Your task to perform on an android device: stop showing notifications on the lock screen Image 0: 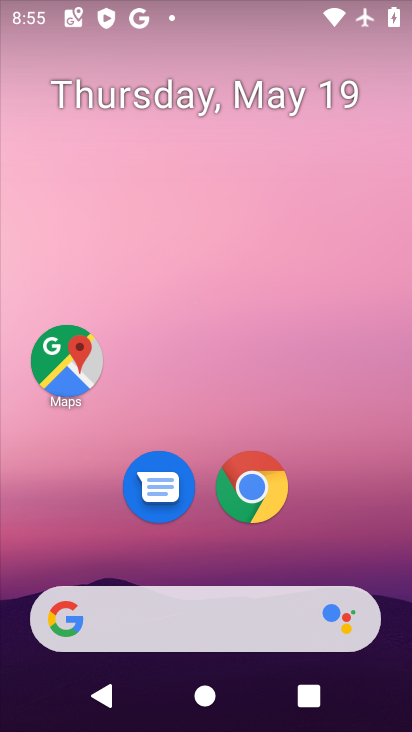
Step 0: drag from (227, 550) to (140, 33)
Your task to perform on an android device: stop showing notifications on the lock screen Image 1: 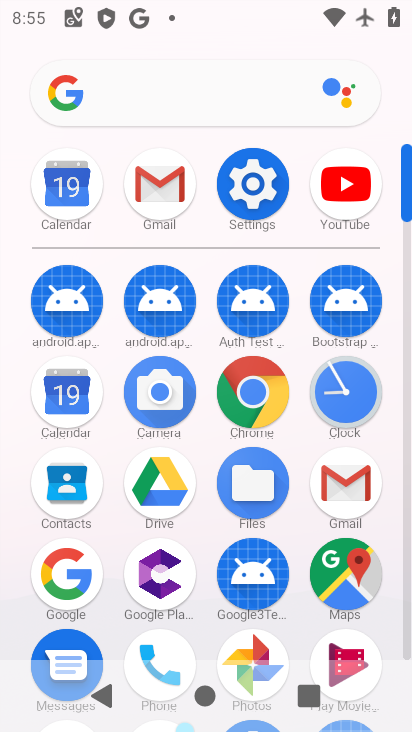
Step 1: click (276, 180)
Your task to perform on an android device: stop showing notifications on the lock screen Image 2: 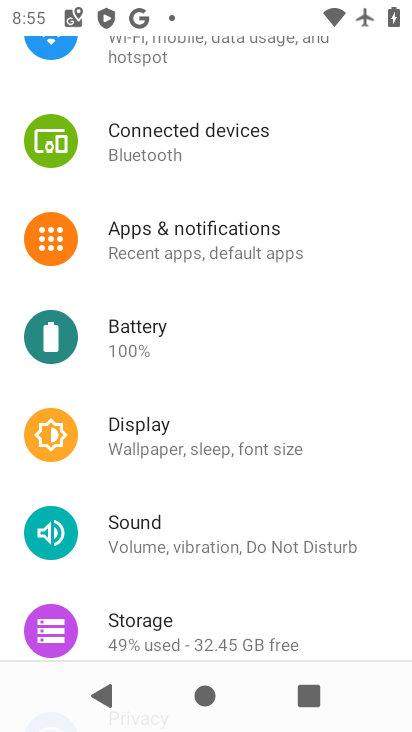
Step 2: click (217, 262)
Your task to perform on an android device: stop showing notifications on the lock screen Image 3: 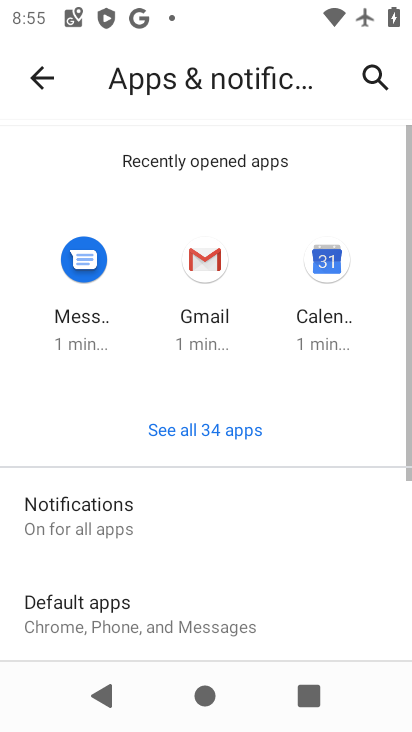
Step 3: click (132, 500)
Your task to perform on an android device: stop showing notifications on the lock screen Image 4: 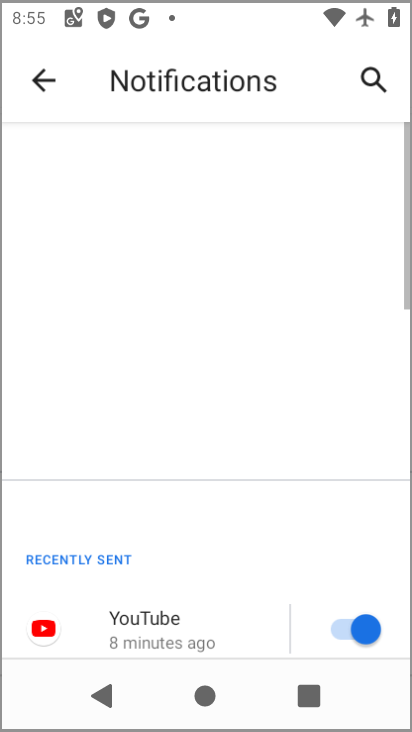
Step 4: drag from (134, 490) to (121, 18)
Your task to perform on an android device: stop showing notifications on the lock screen Image 5: 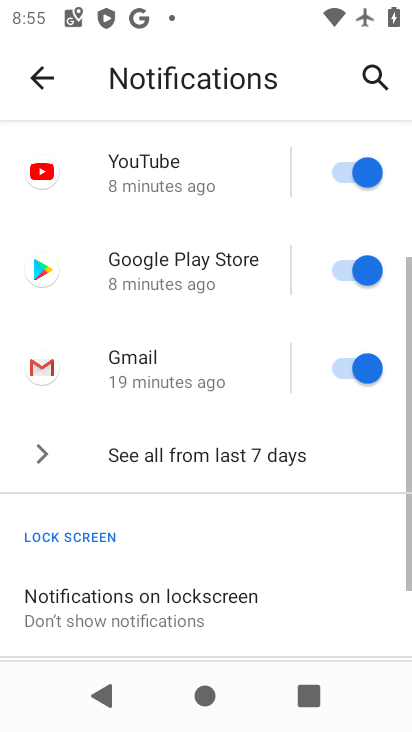
Step 5: drag from (230, 539) to (149, 50)
Your task to perform on an android device: stop showing notifications on the lock screen Image 6: 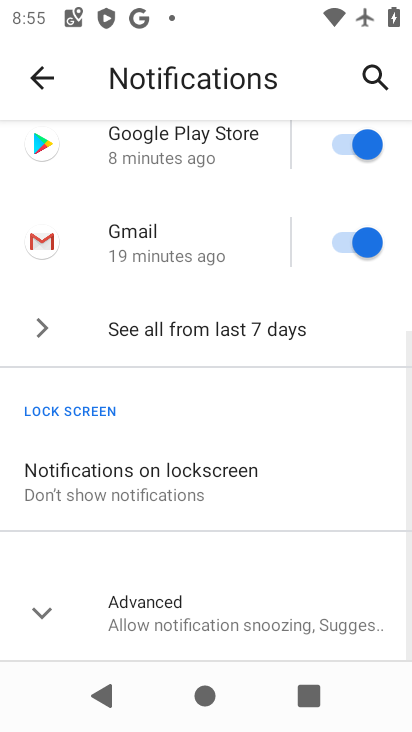
Step 6: click (181, 473)
Your task to perform on an android device: stop showing notifications on the lock screen Image 7: 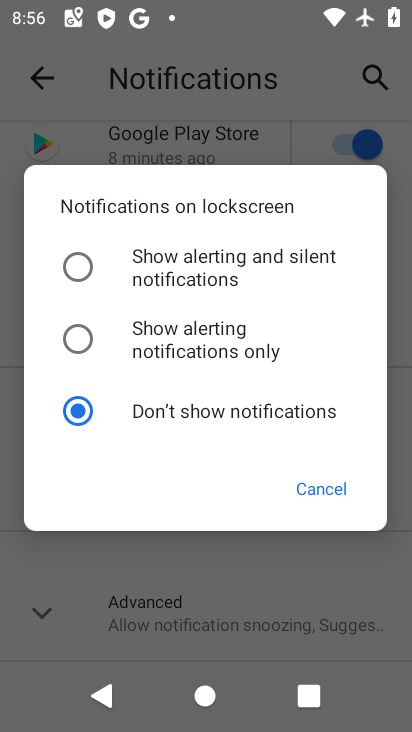
Step 7: task complete